Your task to perform on an android device: Open Google Chrome and click the shortcut for Amazon.com Image 0: 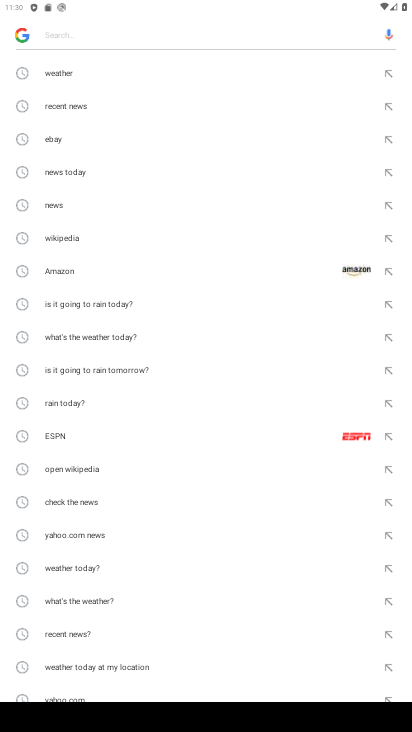
Step 0: press back button
Your task to perform on an android device: Open Google Chrome and click the shortcut for Amazon.com Image 1: 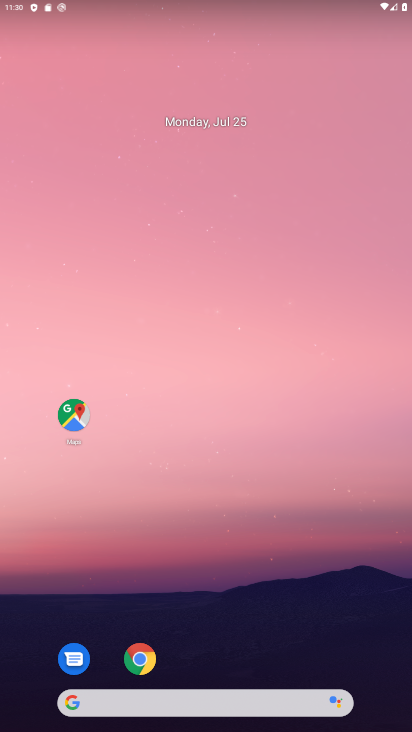
Step 1: click (155, 659)
Your task to perform on an android device: Open Google Chrome and click the shortcut for Amazon.com Image 2: 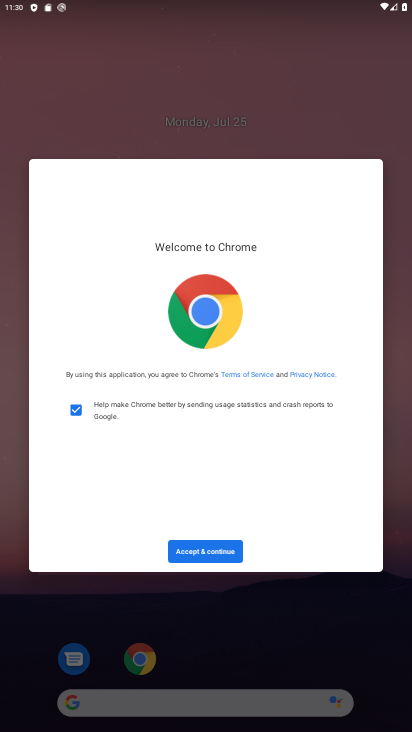
Step 2: click (187, 546)
Your task to perform on an android device: Open Google Chrome and click the shortcut for Amazon.com Image 3: 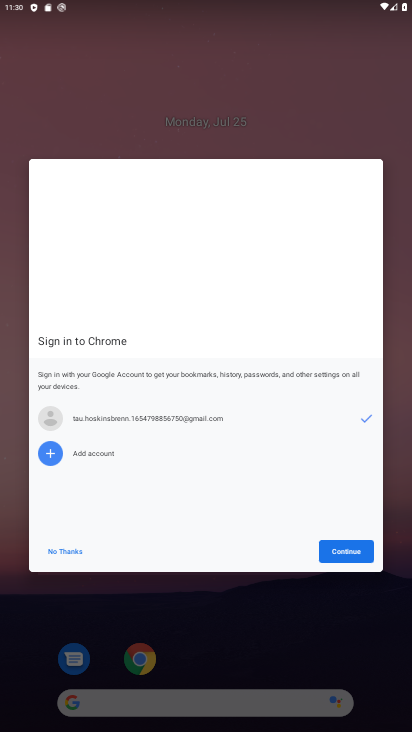
Step 3: click (338, 557)
Your task to perform on an android device: Open Google Chrome and click the shortcut for Amazon.com Image 4: 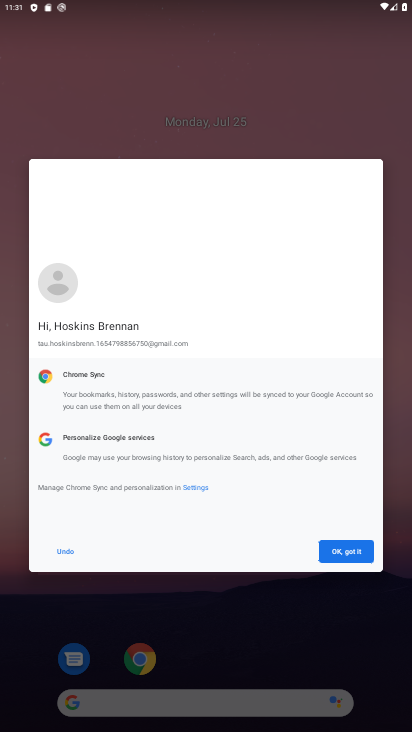
Step 4: click (338, 557)
Your task to perform on an android device: Open Google Chrome and click the shortcut for Amazon.com Image 5: 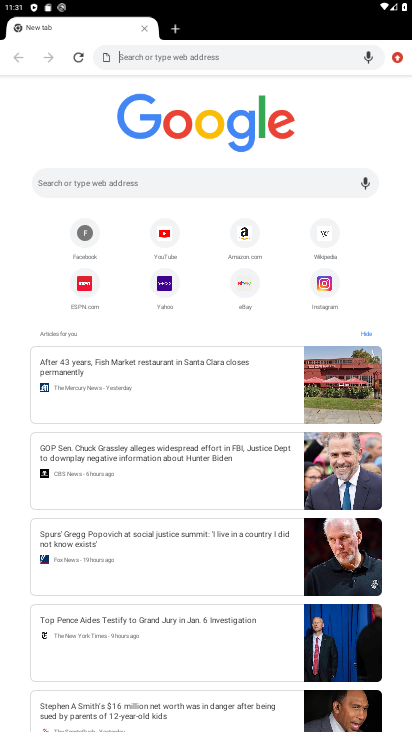
Step 5: click (244, 241)
Your task to perform on an android device: Open Google Chrome and click the shortcut for Amazon.com Image 6: 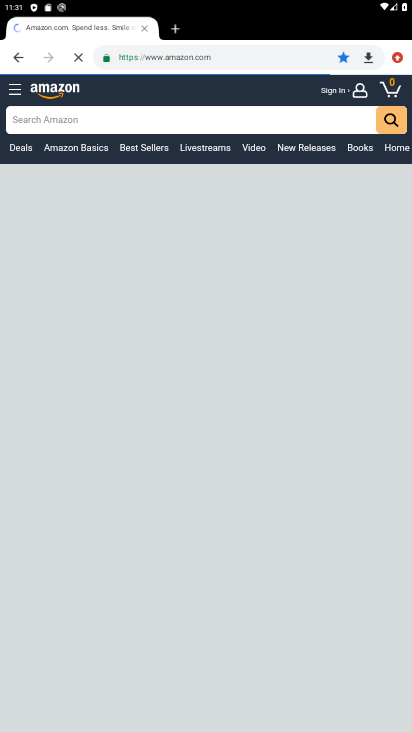
Step 6: task complete